Your task to perform on an android device: toggle location history Image 0: 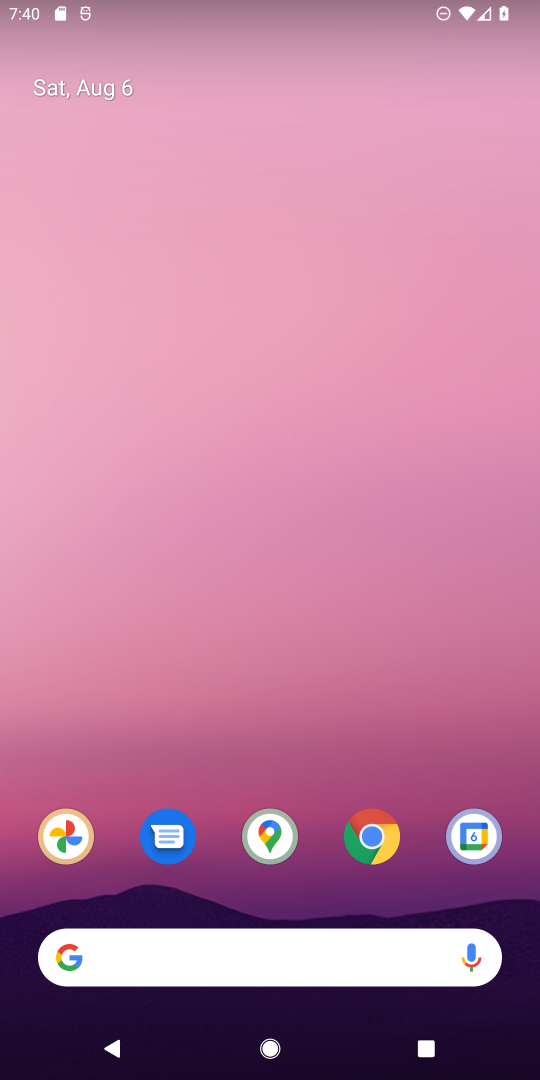
Step 0: drag from (204, 934) to (284, 254)
Your task to perform on an android device: toggle location history Image 1: 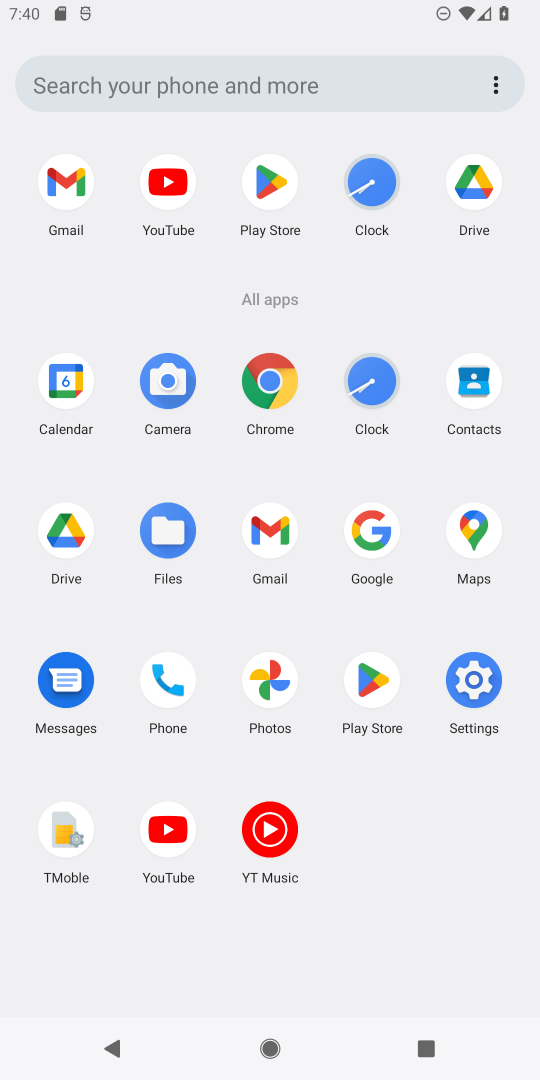
Step 1: click (490, 686)
Your task to perform on an android device: toggle location history Image 2: 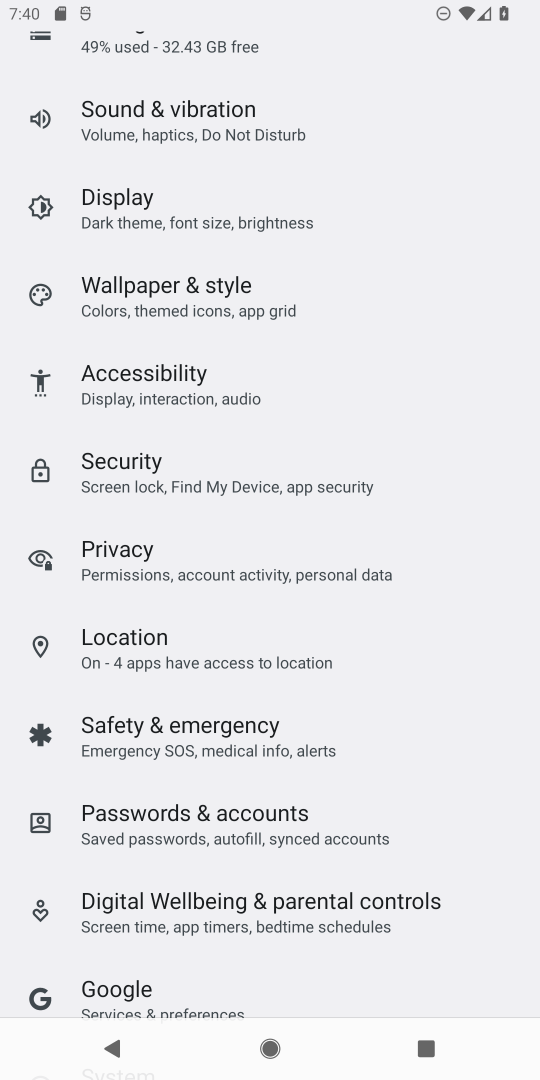
Step 2: drag from (194, 939) to (227, 489)
Your task to perform on an android device: toggle location history Image 3: 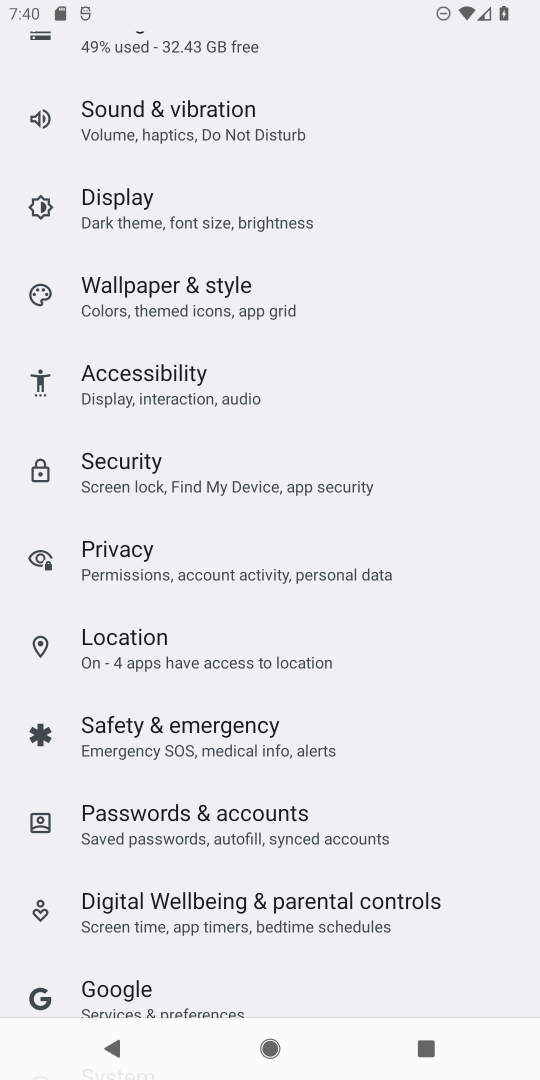
Step 3: click (78, 650)
Your task to perform on an android device: toggle location history Image 4: 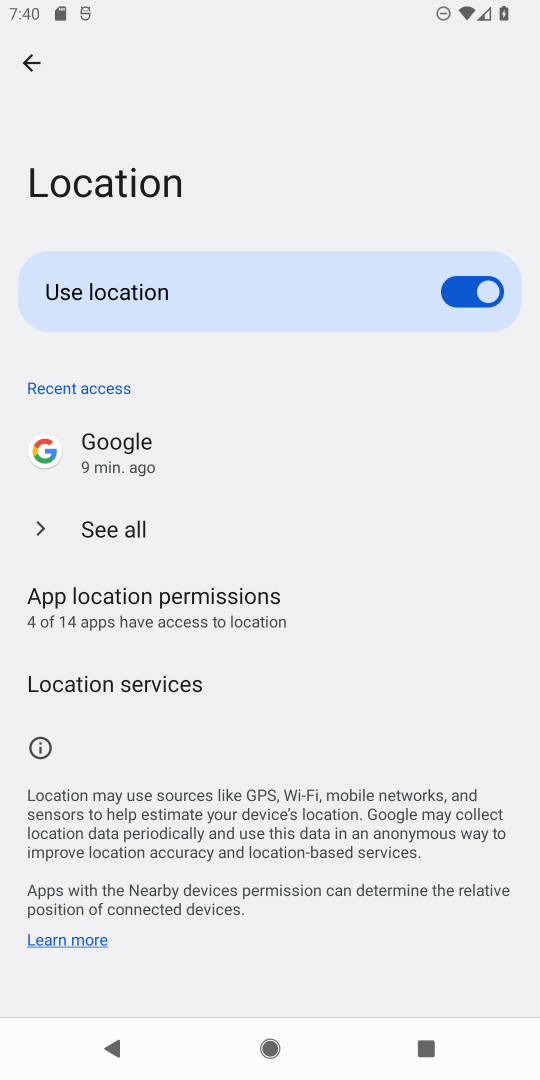
Step 4: click (459, 294)
Your task to perform on an android device: toggle location history Image 5: 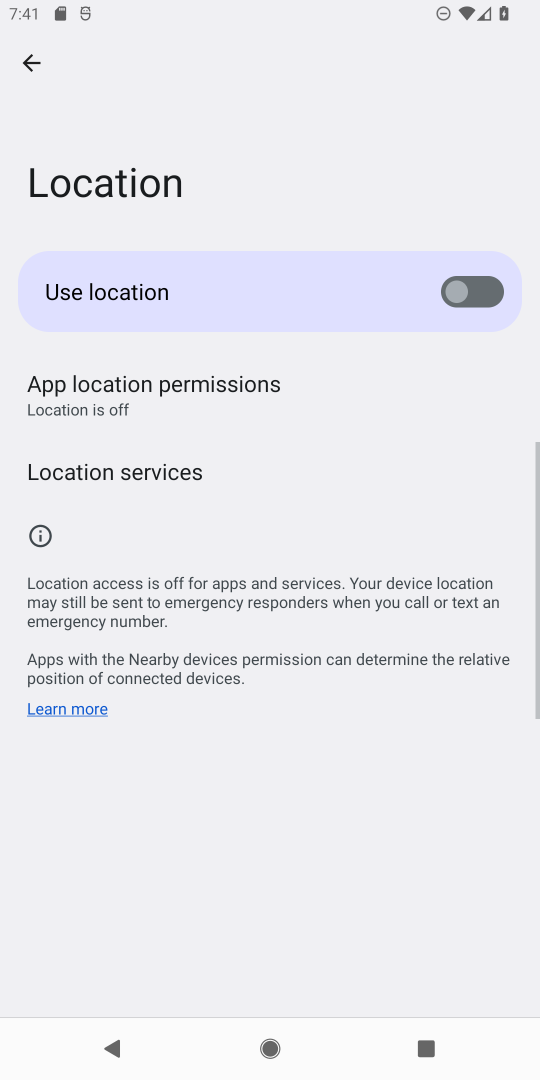
Step 5: task complete